Your task to perform on an android device: Go to Yahoo.com Image 0: 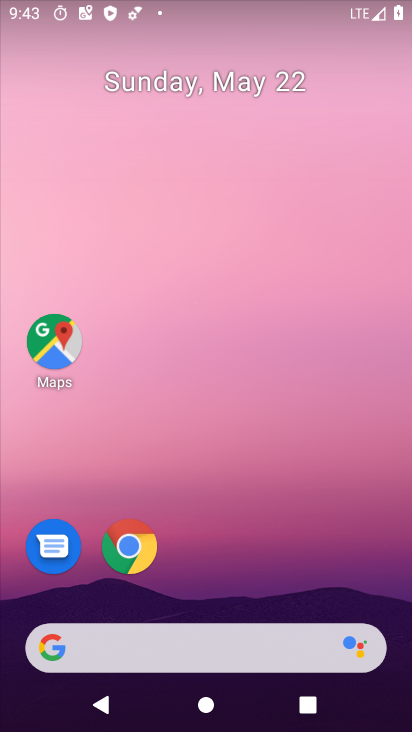
Step 0: click (293, 129)
Your task to perform on an android device: Go to Yahoo.com Image 1: 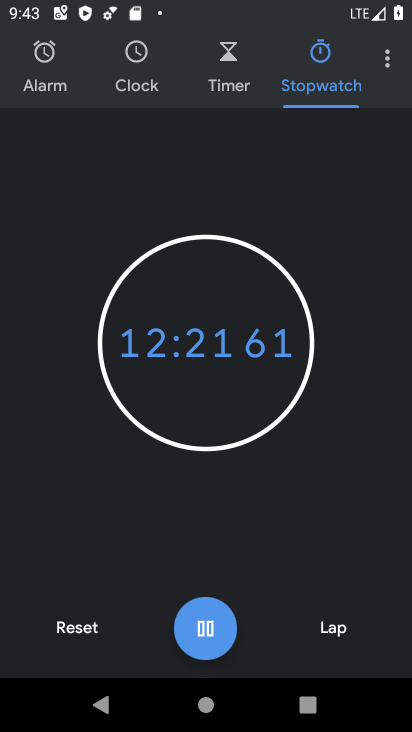
Step 1: press home button
Your task to perform on an android device: Go to Yahoo.com Image 2: 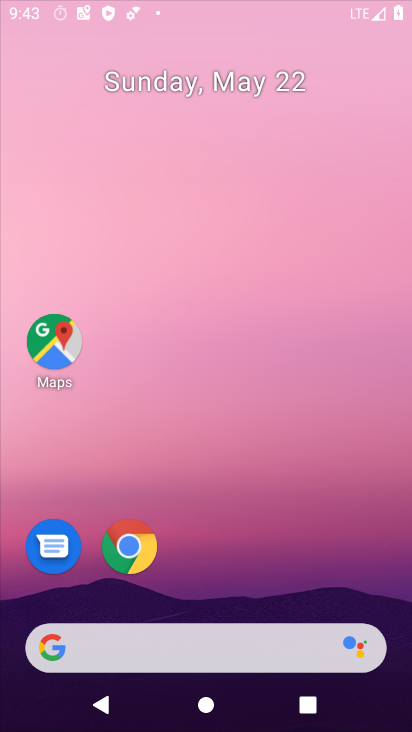
Step 2: drag from (202, 546) to (257, 7)
Your task to perform on an android device: Go to Yahoo.com Image 3: 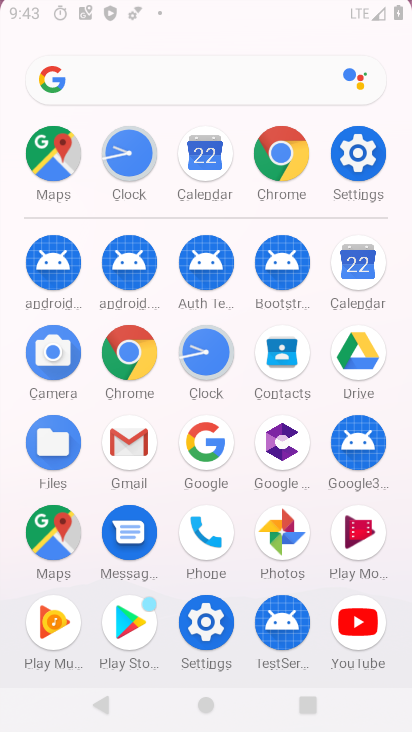
Step 3: click (146, 134)
Your task to perform on an android device: Go to Yahoo.com Image 4: 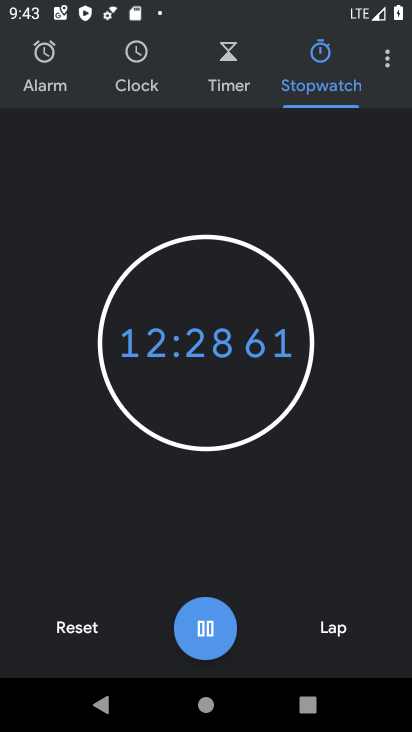
Step 4: click (78, 631)
Your task to perform on an android device: Go to Yahoo.com Image 5: 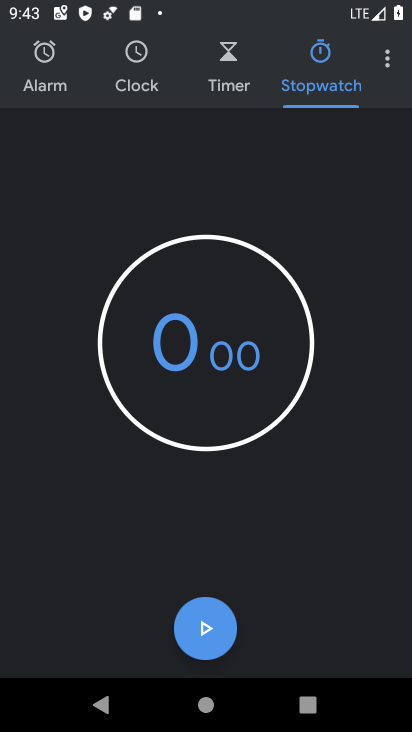
Step 5: press home button
Your task to perform on an android device: Go to Yahoo.com Image 6: 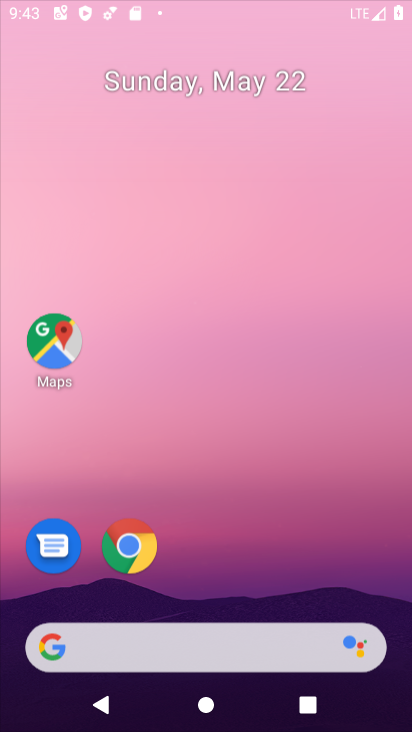
Step 6: drag from (169, 584) to (239, 70)
Your task to perform on an android device: Go to Yahoo.com Image 7: 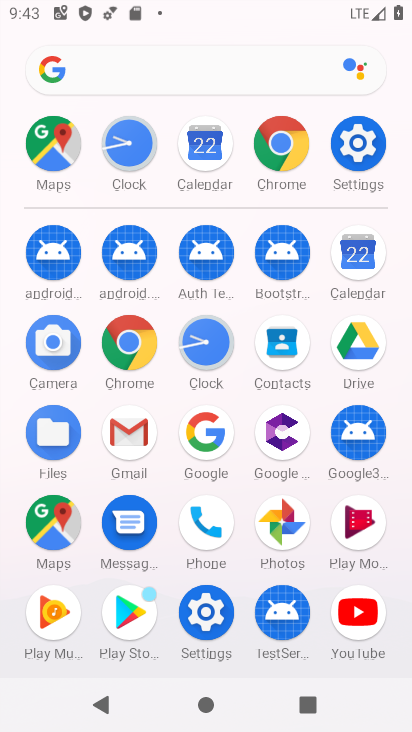
Step 7: click (183, 82)
Your task to perform on an android device: Go to Yahoo.com Image 8: 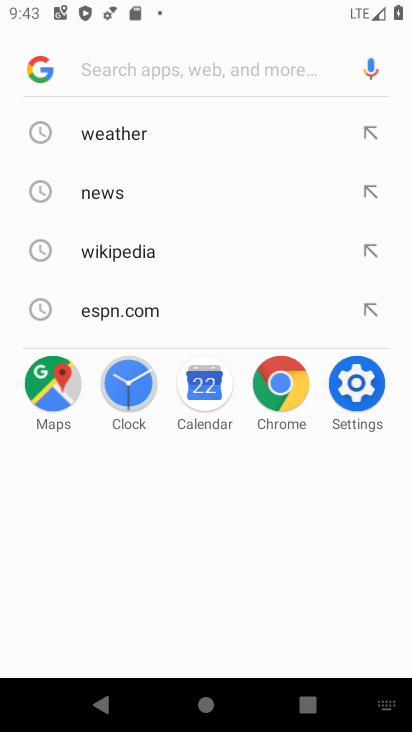
Step 8: type "yahoo.com"
Your task to perform on an android device: Go to Yahoo.com Image 9: 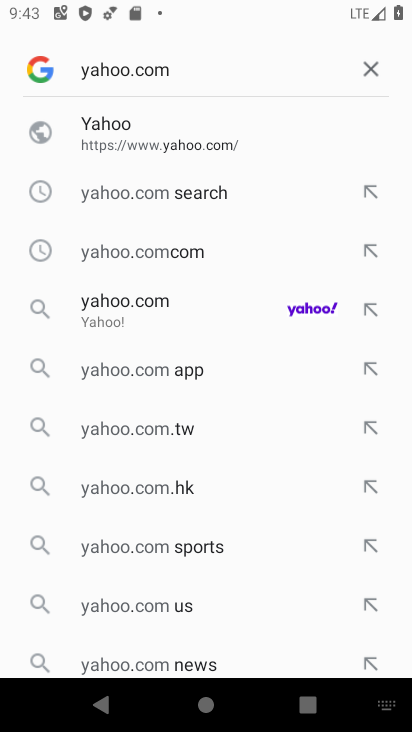
Step 9: click (168, 126)
Your task to perform on an android device: Go to Yahoo.com Image 10: 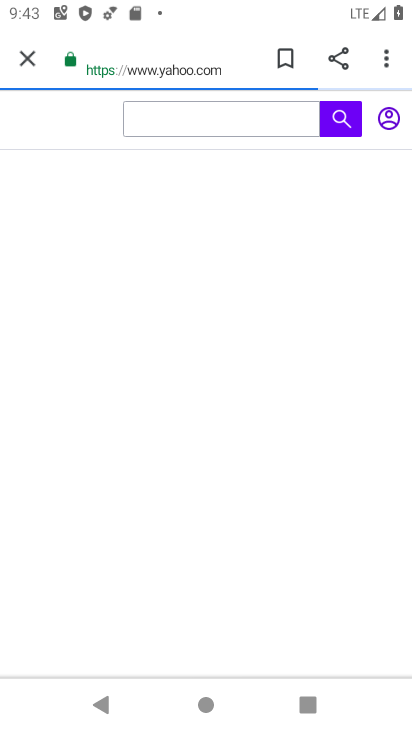
Step 10: task complete